Your task to perform on an android device: set default search engine in the chrome app Image 0: 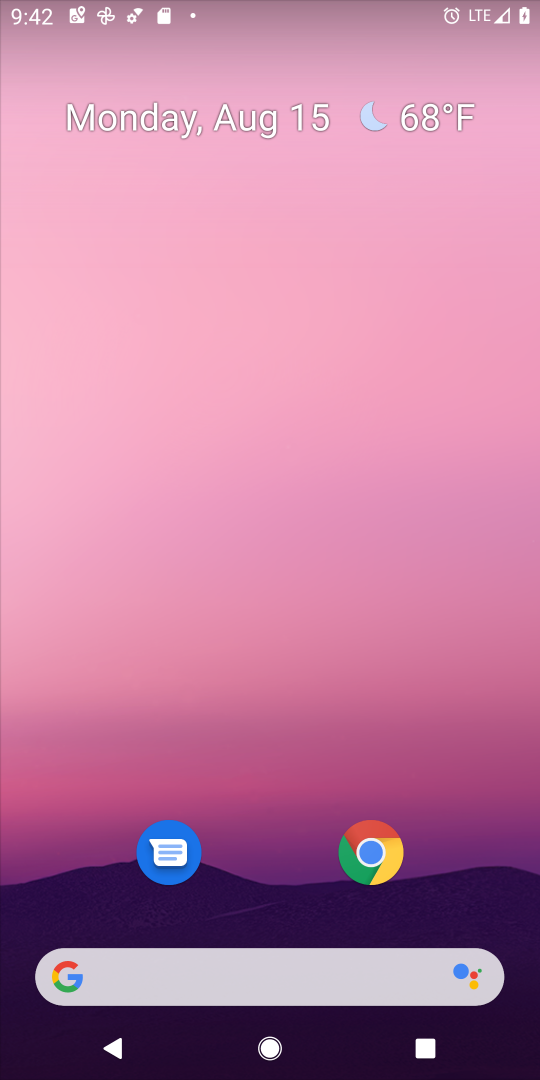
Step 0: click (370, 855)
Your task to perform on an android device: set default search engine in the chrome app Image 1: 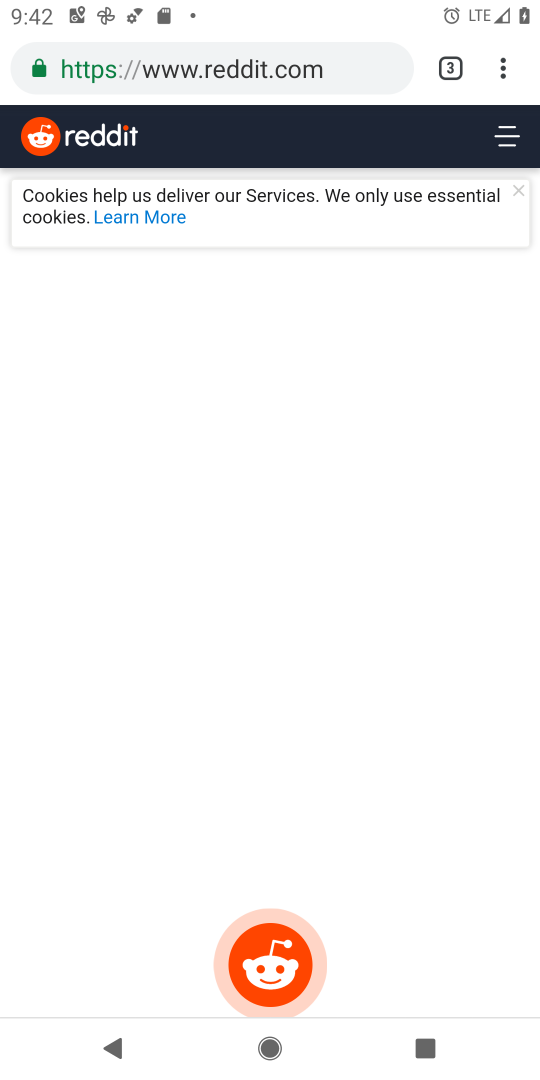
Step 1: click (519, 77)
Your task to perform on an android device: set default search engine in the chrome app Image 2: 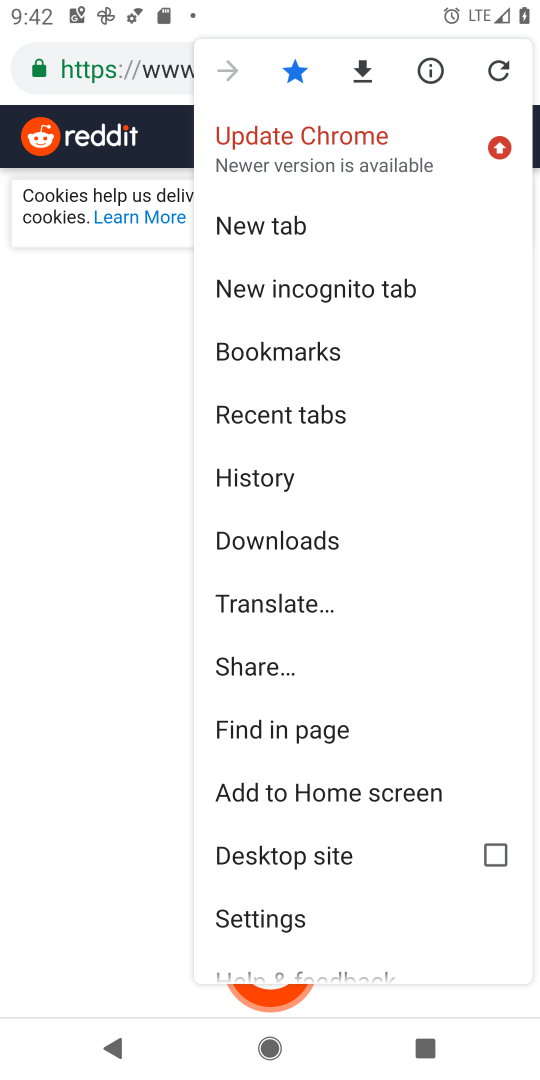
Step 2: click (277, 924)
Your task to perform on an android device: set default search engine in the chrome app Image 3: 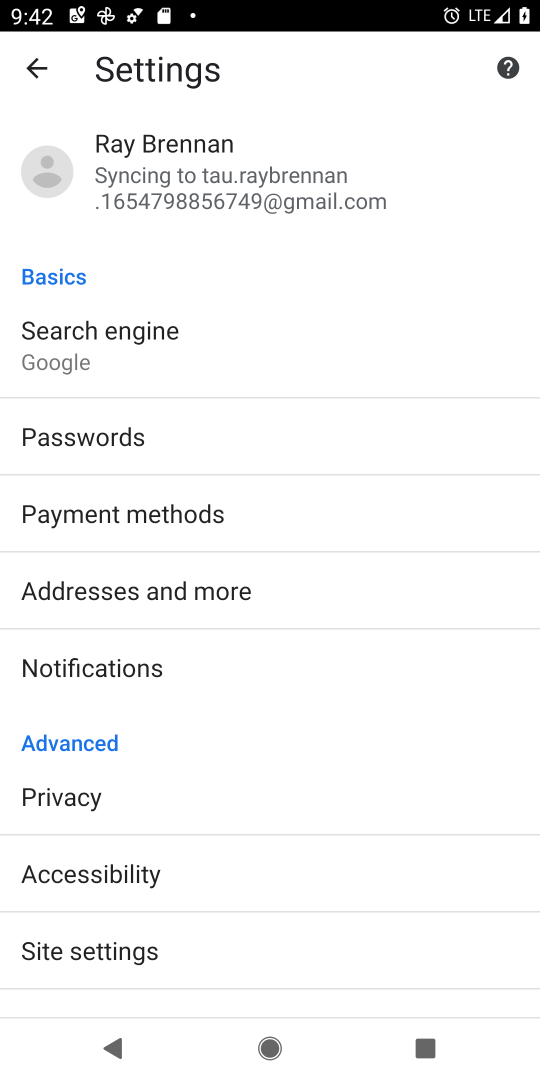
Step 3: click (90, 328)
Your task to perform on an android device: set default search engine in the chrome app Image 4: 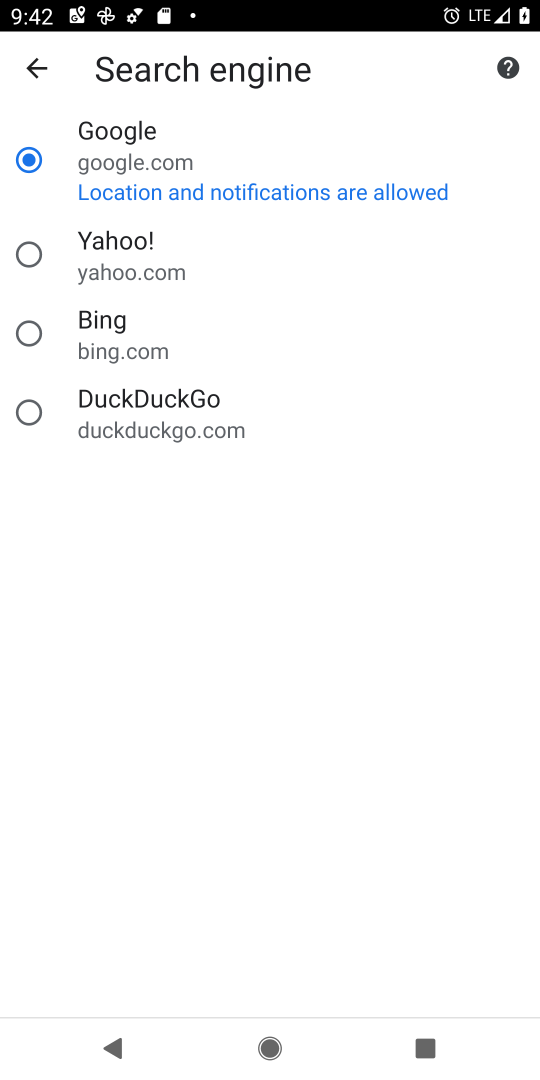
Step 4: click (35, 158)
Your task to perform on an android device: set default search engine in the chrome app Image 5: 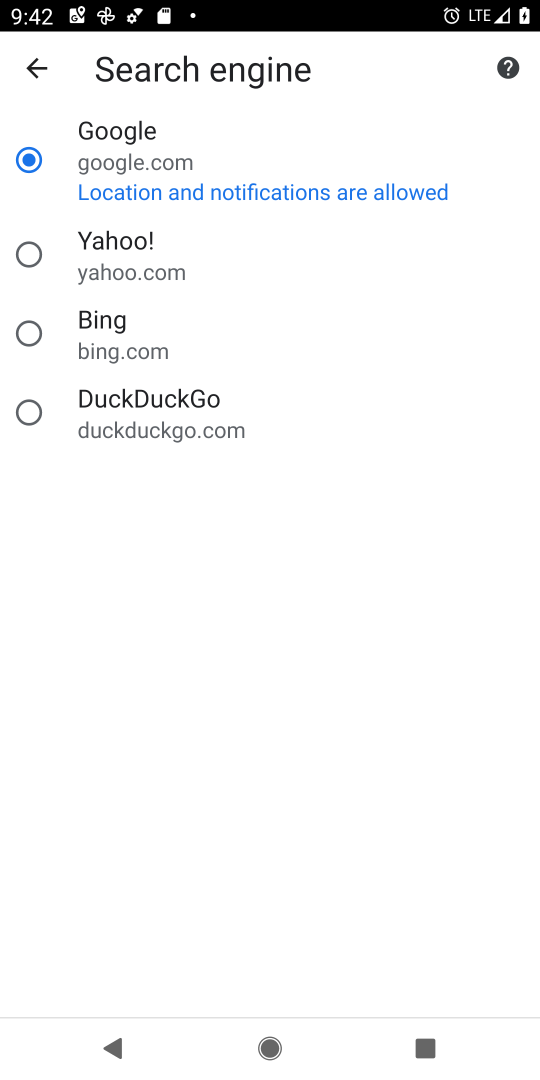
Step 5: task complete